Your task to perform on an android device: turn on location history Image 0: 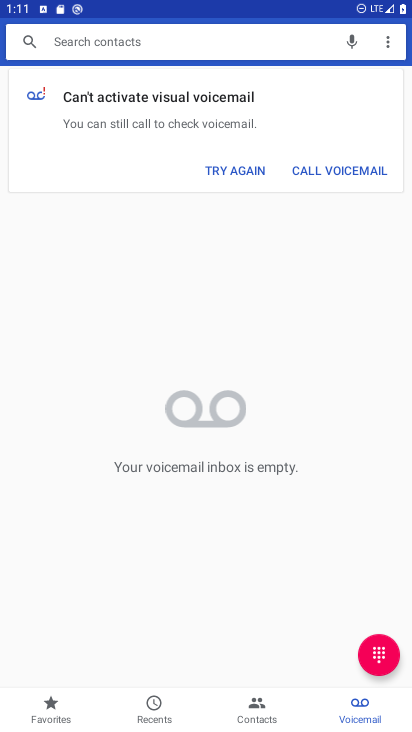
Step 0: press home button
Your task to perform on an android device: turn on location history Image 1: 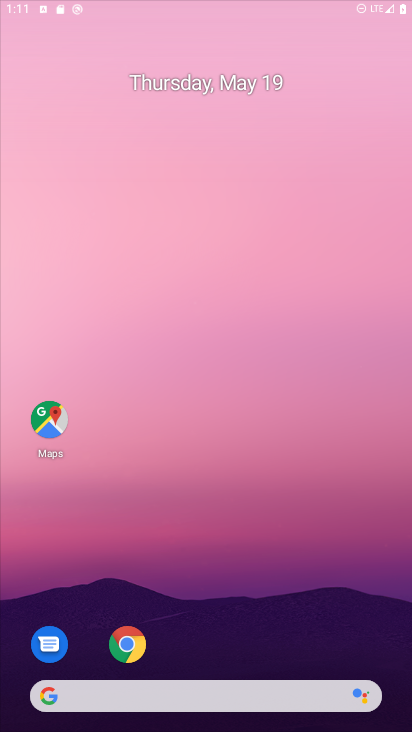
Step 1: drag from (342, 599) to (244, 52)
Your task to perform on an android device: turn on location history Image 2: 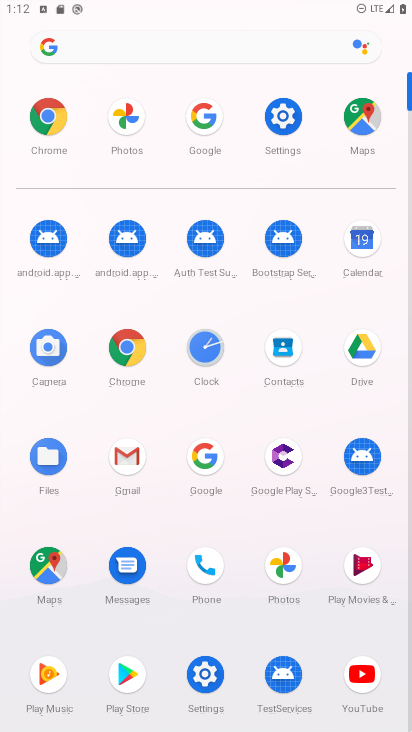
Step 2: click (198, 678)
Your task to perform on an android device: turn on location history Image 3: 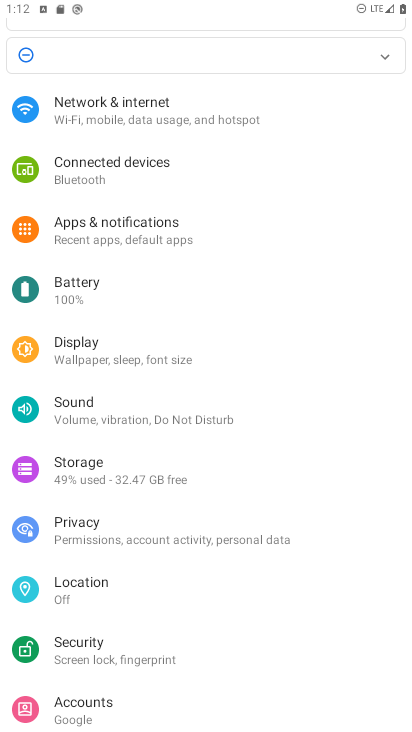
Step 3: click (53, 597)
Your task to perform on an android device: turn on location history Image 4: 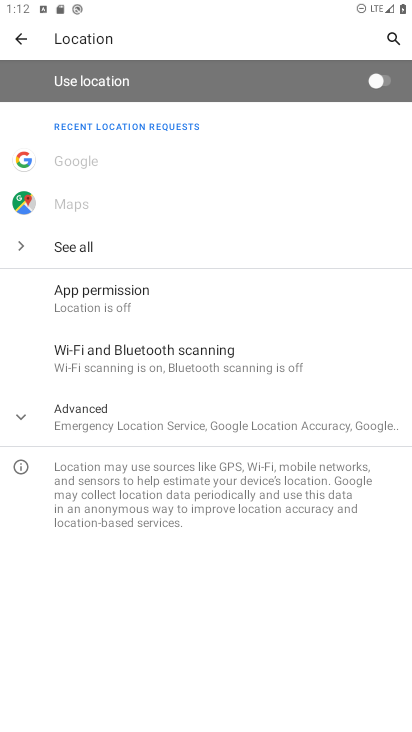
Step 4: click (94, 421)
Your task to perform on an android device: turn on location history Image 5: 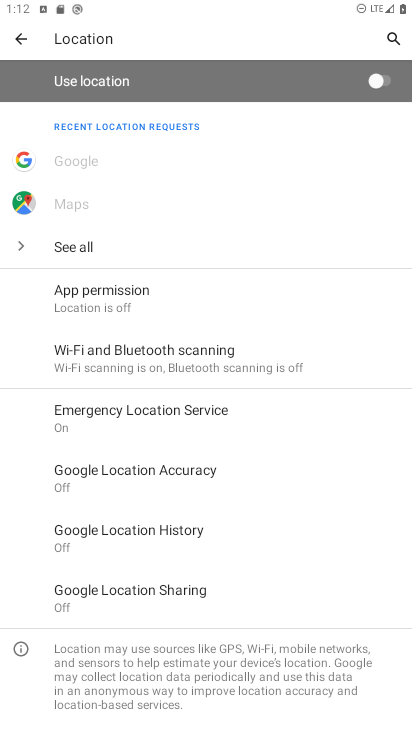
Step 5: click (158, 523)
Your task to perform on an android device: turn on location history Image 6: 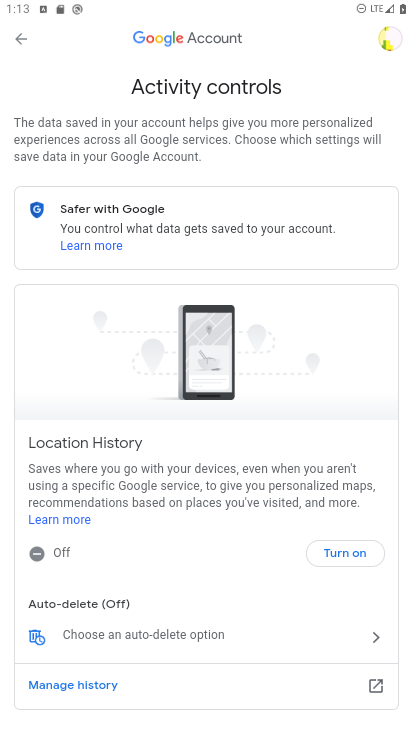
Step 6: task complete